Your task to perform on an android device: turn on improve location accuracy Image 0: 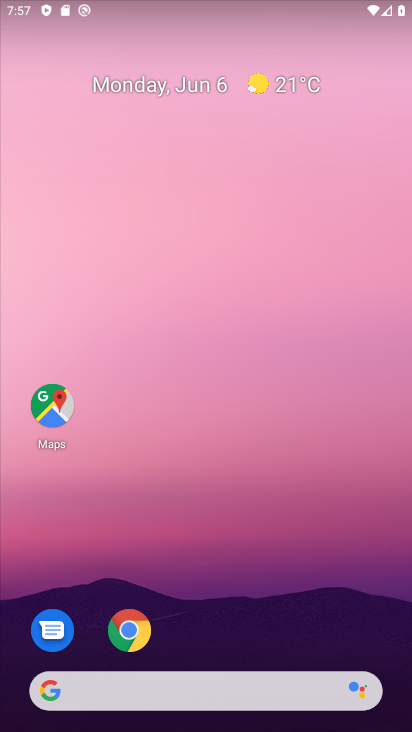
Step 0: drag from (288, 574) to (242, 10)
Your task to perform on an android device: turn on improve location accuracy Image 1: 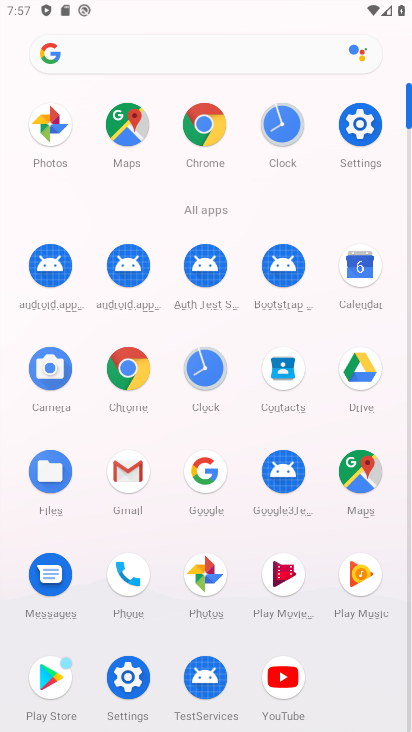
Step 1: click (362, 123)
Your task to perform on an android device: turn on improve location accuracy Image 2: 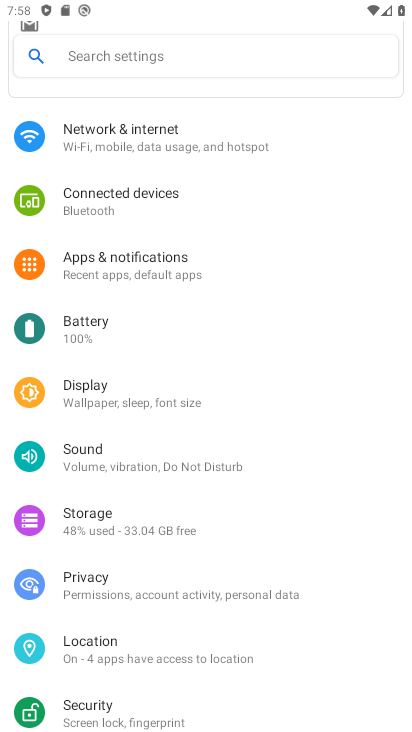
Step 2: click (161, 658)
Your task to perform on an android device: turn on improve location accuracy Image 3: 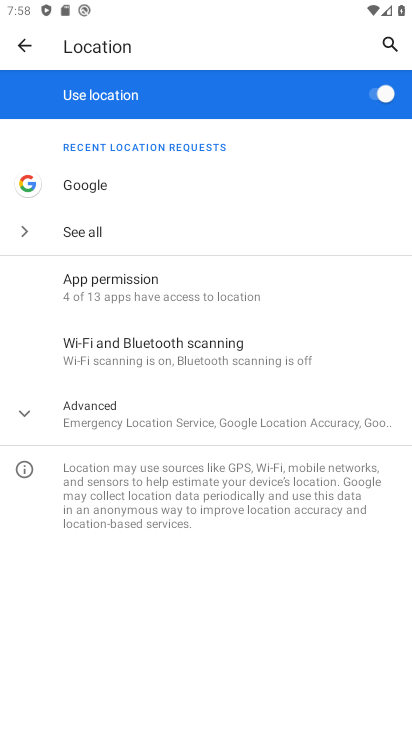
Step 3: click (188, 417)
Your task to perform on an android device: turn on improve location accuracy Image 4: 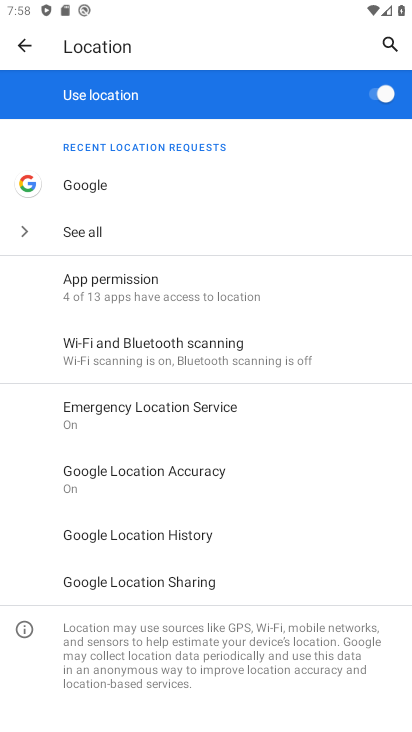
Step 4: click (202, 460)
Your task to perform on an android device: turn on improve location accuracy Image 5: 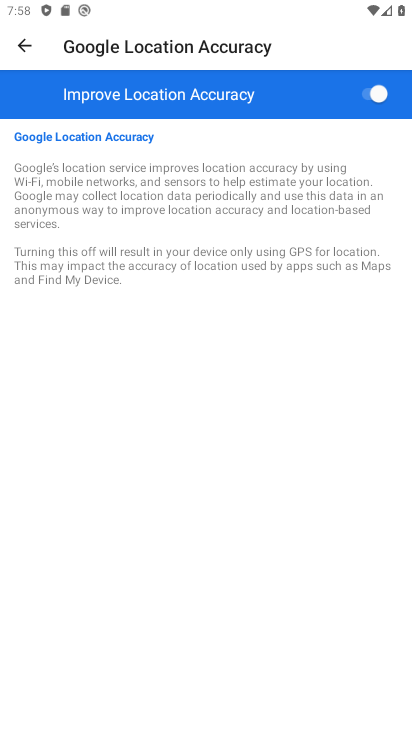
Step 5: task complete